Your task to perform on an android device: delete browsing data in the chrome app Image 0: 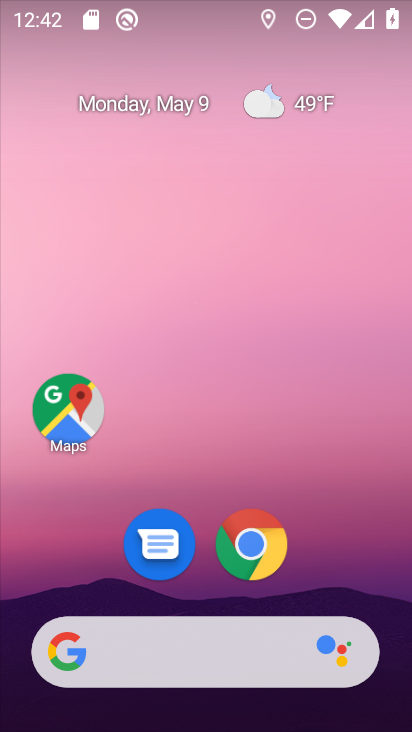
Step 0: drag from (355, 534) to (291, 1)
Your task to perform on an android device: delete browsing data in the chrome app Image 1: 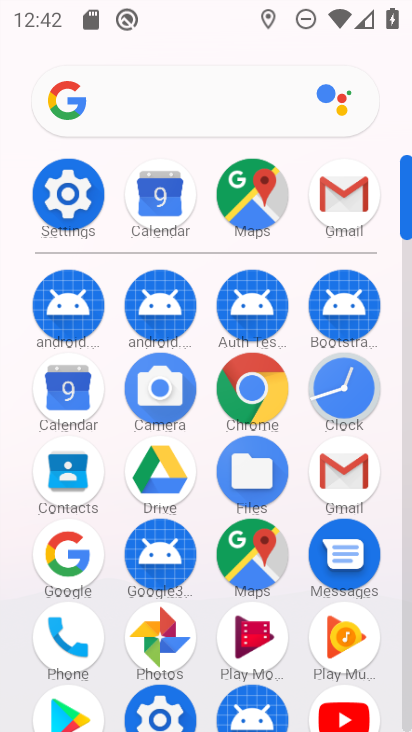
Step 1: click (265, 401)
Your task to perform on an android device: delete browsing data in the chrome app Image 2: 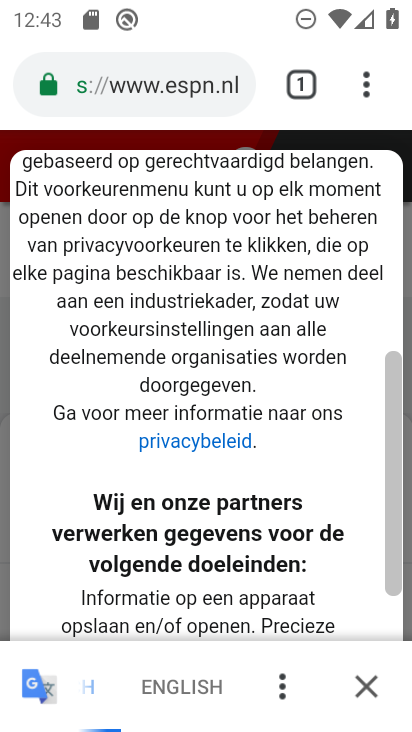
Step 2: drag from (360, 94) to (62, 483)
Your task to perform on an android device: delete browsing data in the chrome app Image 3: 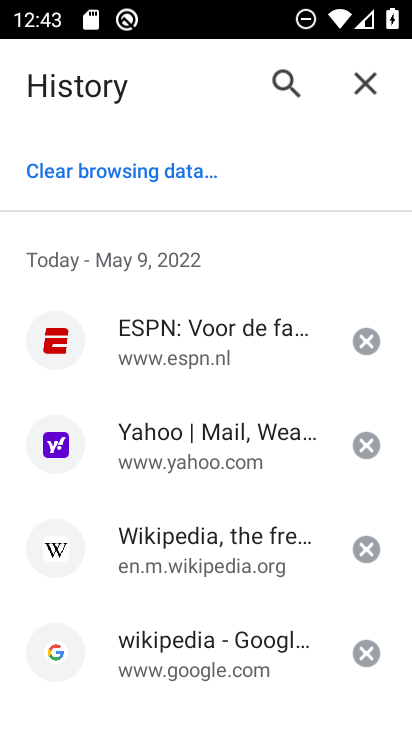
Step 3: click (71, 162)
Your task to perform on an android device: delete browsing data in the chrome app Image 4: 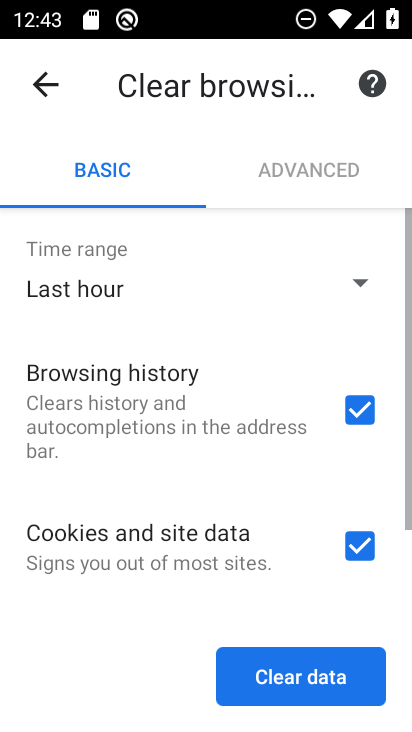
Step 4: click (304, 669)
Your task to perform on an android device: delete browsing data in the chrome app Image 5: 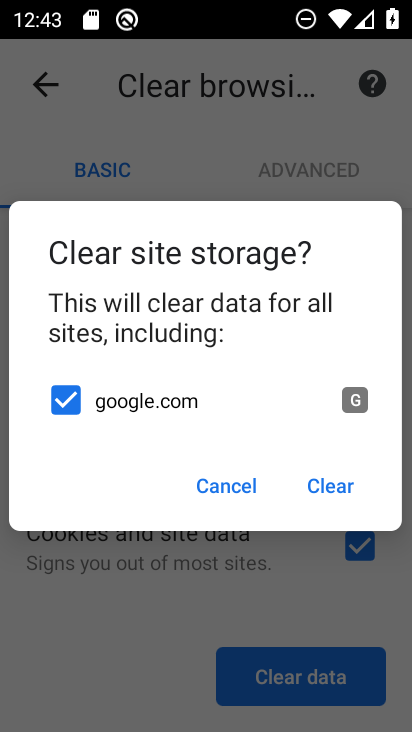
Step 5: click (329, 477)
Your task to perform on an android device: delete browsing data in the chrome app Image 6: 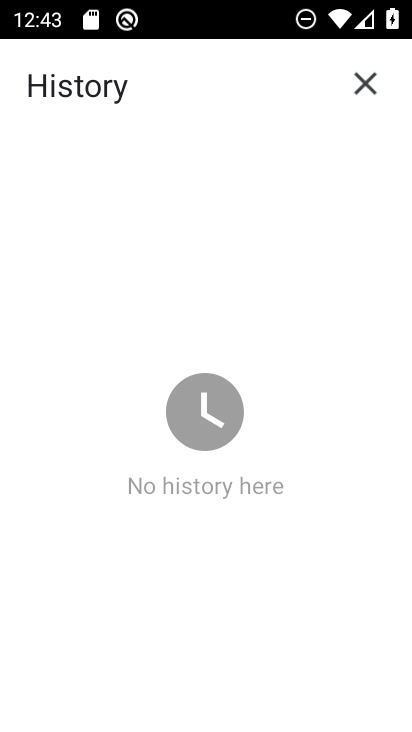
Step 6: task complete